Your task to perform on an android device: Open the phone app and click the voicemail tab. Image 0: 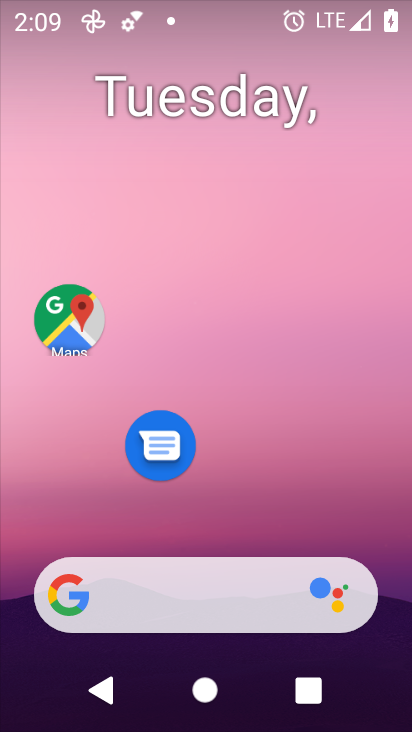
Step 0: drag from (269, 465) to (269, 46)
Your task to perform on an android device: Open the phone app and click the voicemail tab. Image 1: 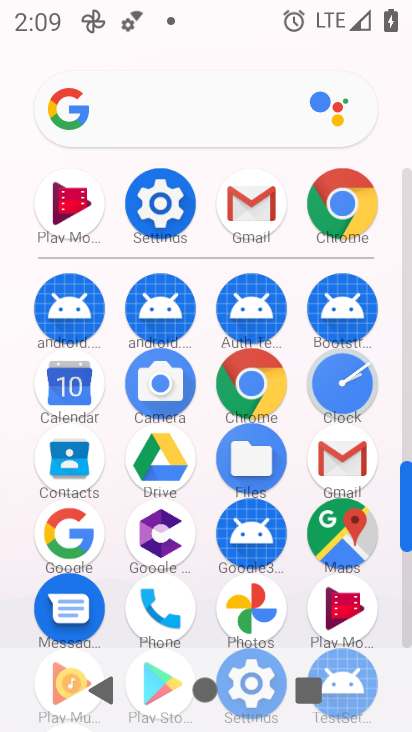
Step 1: drag from (206, 628) to (161, 230)
Your task to perform on an android device: Open the phone app and click the voicemail tab. Image 2: 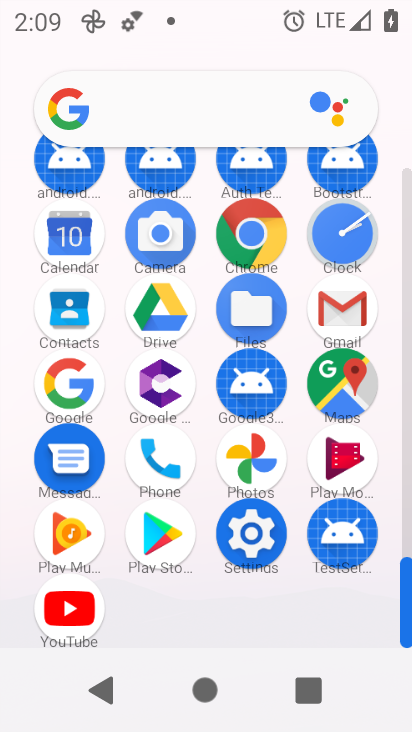
Step 2: click (340, 465)
Your task to perform on an android device: Open the phone app and click the voicemail tab. Image 3: 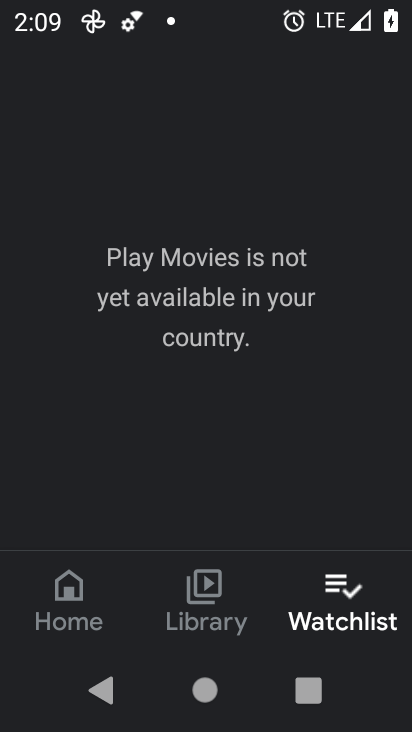
Step 3: click (323, 577)
Your task to perform on an android device: Open the phone app and click the voicemail tab. Image 4: 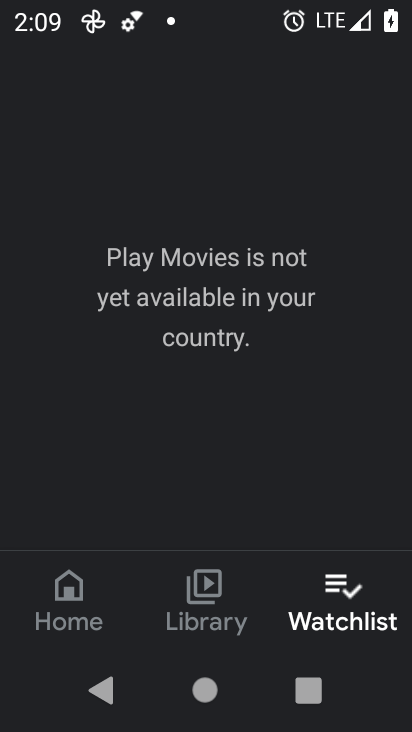
Step 4: task complete